Your task to perform on an android device: Open the stopwatch Image 0: 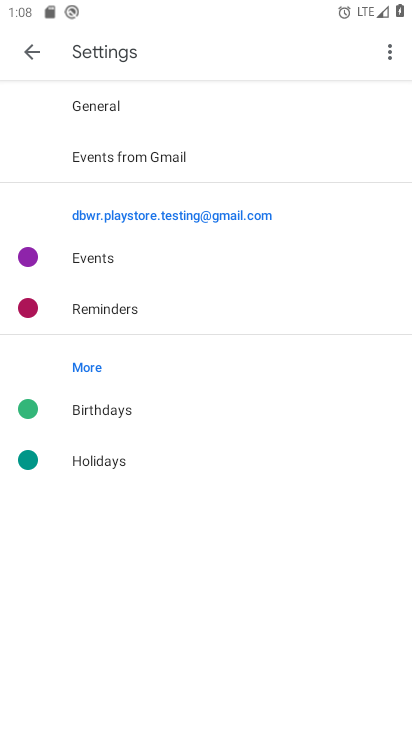
Step 0: press home button
Your task to perform on an android device: Open the stopwatch Image 1: 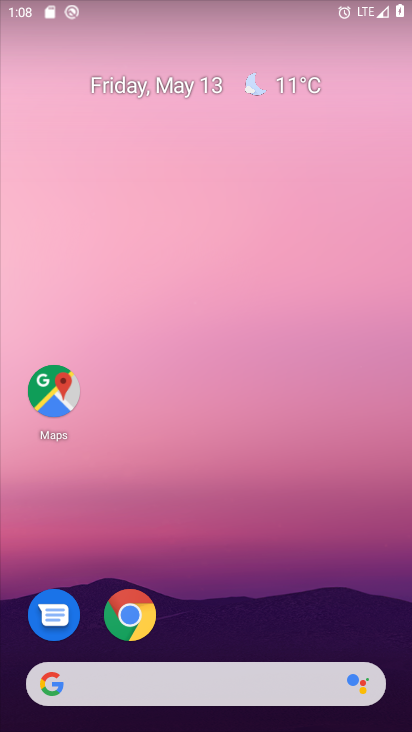
Step 1: drag from (230, 609) to (205, 16)
Your task to perform on an android device: Open the stopwatch Image 2: 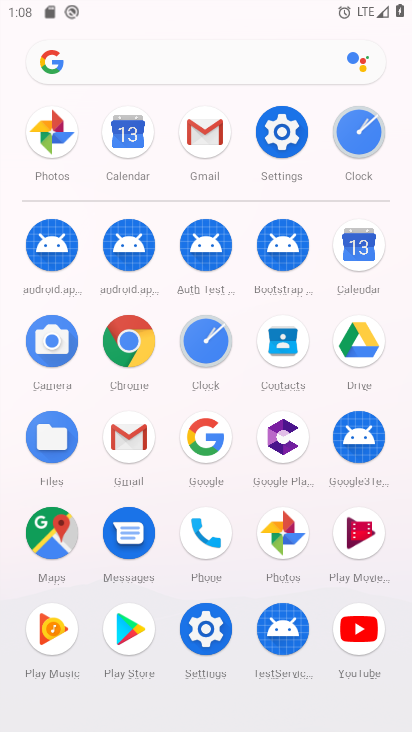
Step 2: click (365, 130)
Your task to perform on an android device: Open the stopwatch Image 3: 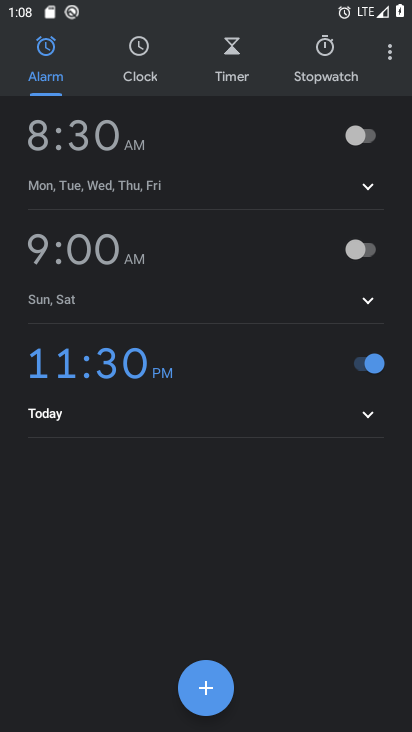
Step 3: click (323, 42)
Your task to perform on an android device: Open the stopwatch Image 4: 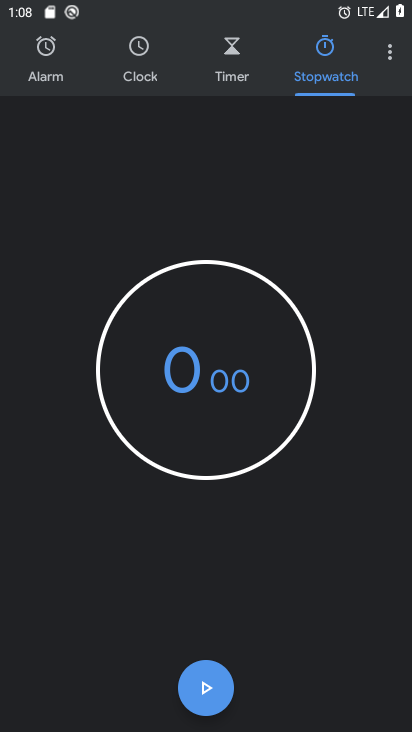
Step 4: task complete